Your task to perform on an android device: Play the last video I watched on Youtube Image 0: 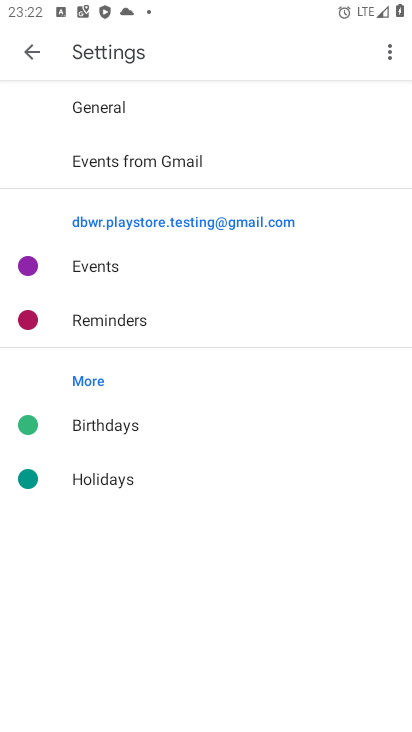
Step 0: press home button
Your task to perform on an android device: Play the last video I watched on Youtube Image 1: 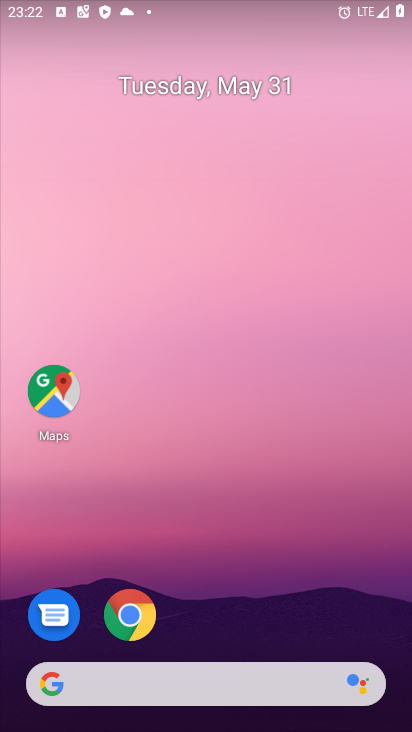
Step 1: drag from (392, 630) to (334, 148)
Your task to perform on an android device: Play the last video I watched on Youtube Image 2: 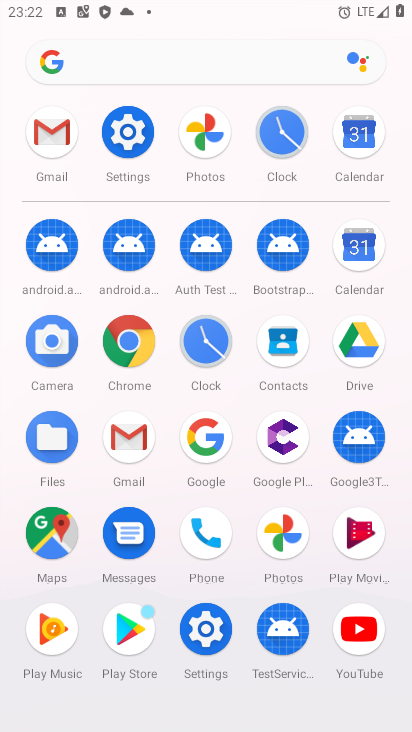
Step 2: click (358, 629)
Your task to perform on an android device: Play the last video I watched on Youtube Image 3: 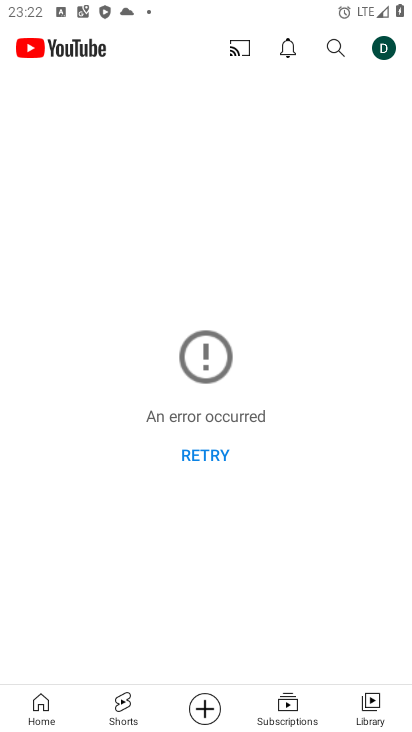
Step 3: click (377, 708)
Your task to perform on an android device: Play the last video I watched on Youtube Image 4: 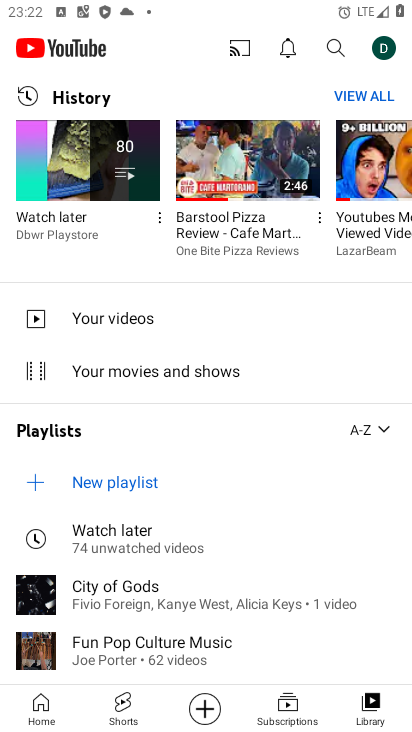
Step 4: click (71, 147)
Your task to perform on an android device: Play the last video I watched on Youtube Image 5: 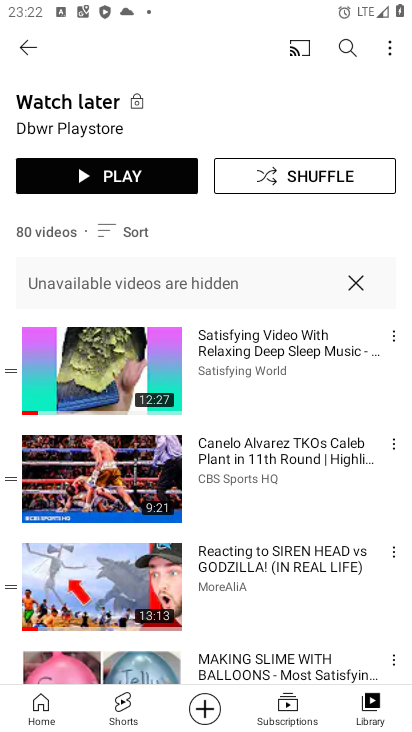
Step 5: drag from (191, 621) to (193, 221)
Your task to perform on an android device: Play the last video I watched on Youtube Image 6: 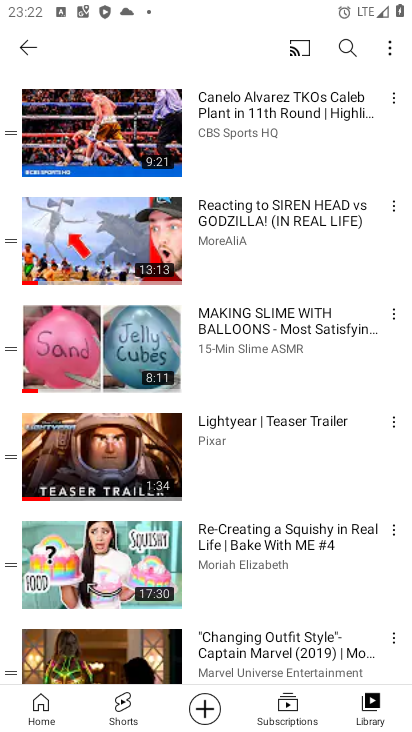
Step 6: drag from (270, 179) to (262, 513)
Your task to perform on an android device: Play the last video I watched on Youtube Image 7: 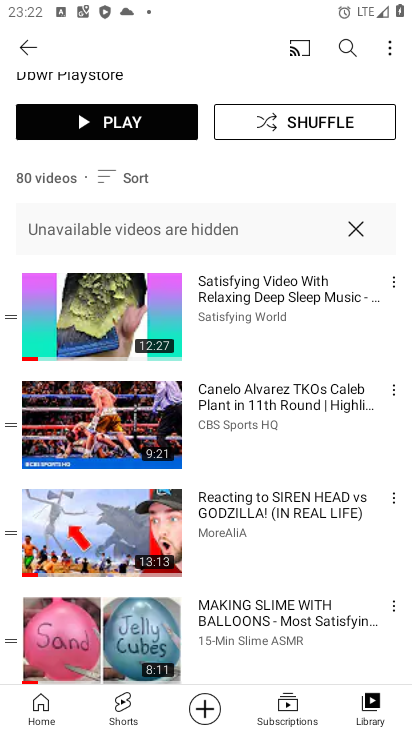
Step 7: drag from (206, 256) to (167, 585)
Your task to perform on an android device: Play the last video I watched on Youtube Image 8: 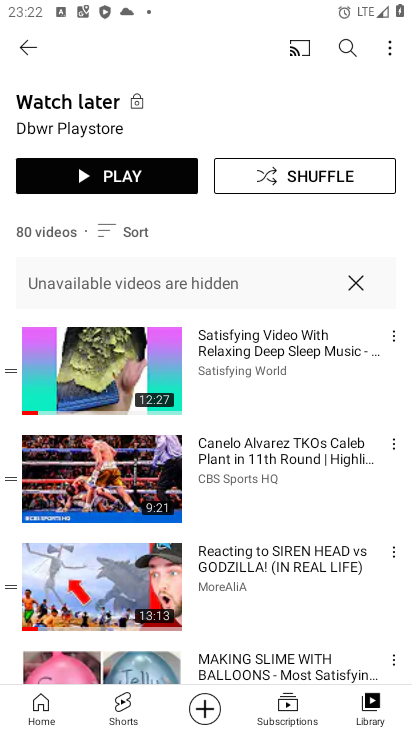
Step 8: press back button
Your task to perform on an android device: Play the last video I watched on Youtube Image 9: 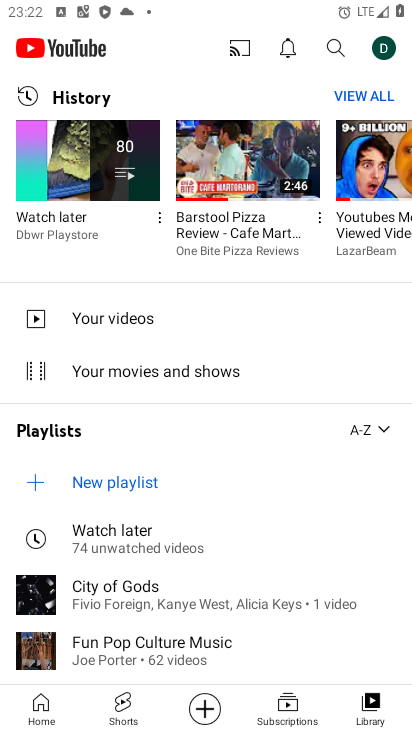
Step 9: click (227, 152)
Your task to perform on an android device: Play the last video I watched on Youtube Image 10: 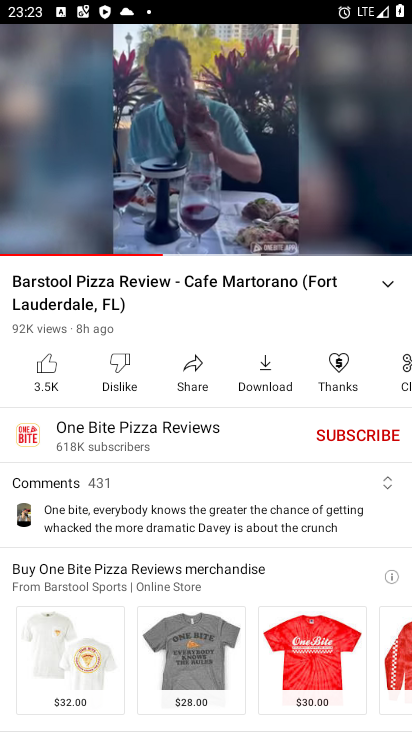
Step 10: click (198, 126)
Your task to perform on an android device: Play the last video I watched on Youtube Image 11: 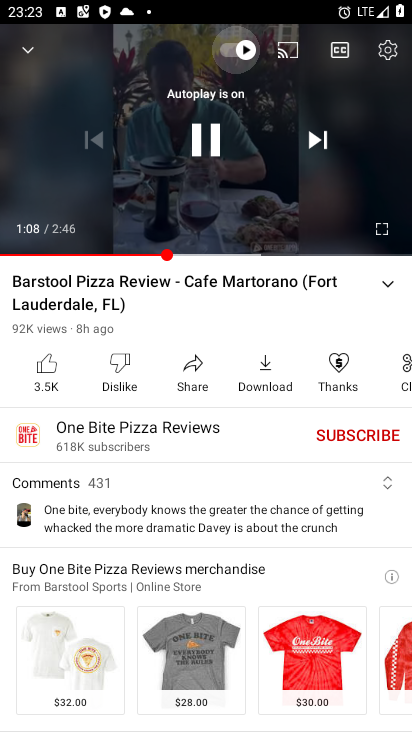
Step 11: click (209, 134)
Your task to perform on an android device: Play the last video I watched on Youtube Image 12: 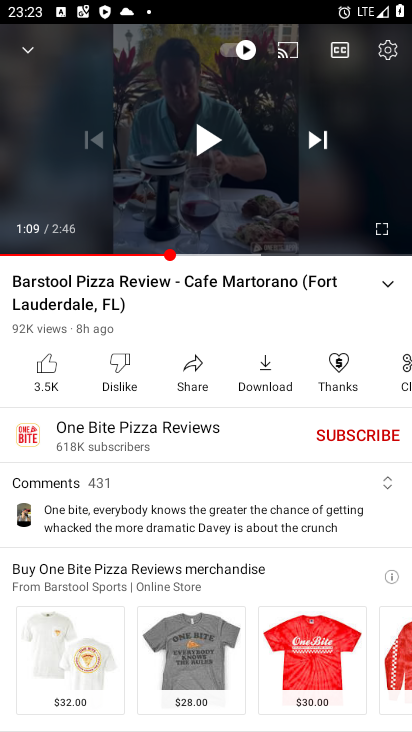
Step 12: task complete